Your task to perform on an android device: Search for pizza restaurants on Maps Image 0: 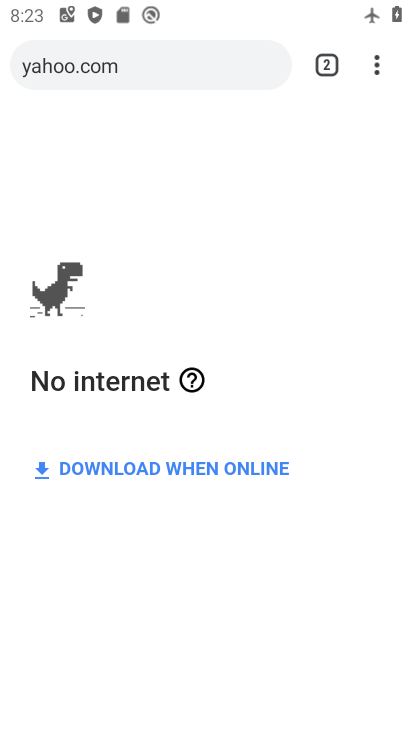
Step 0: press home button
Your task to perform on an android device: Search for pizza restaurants on Maps Image 1: 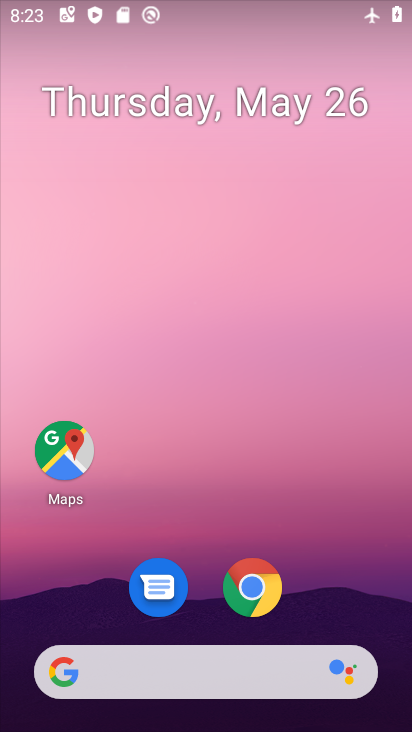
Step 1: click (89, 448)
Your task to perform on an android device: Search for pizza restaurants on Maps Image 2: 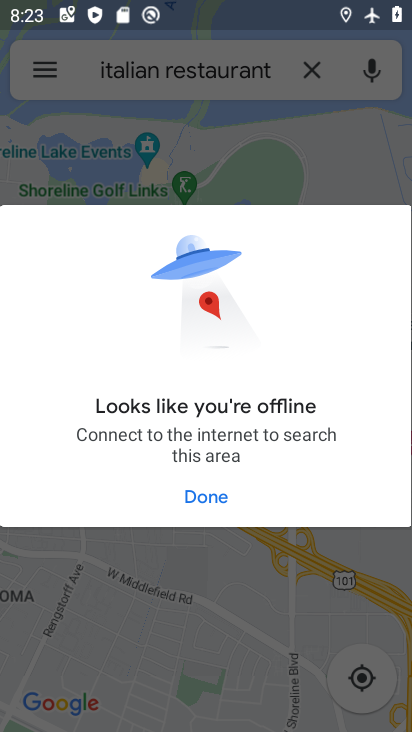
Step 2: task complete